Your task to perform on an android device: Show me popular videos on Youtube Image 0: 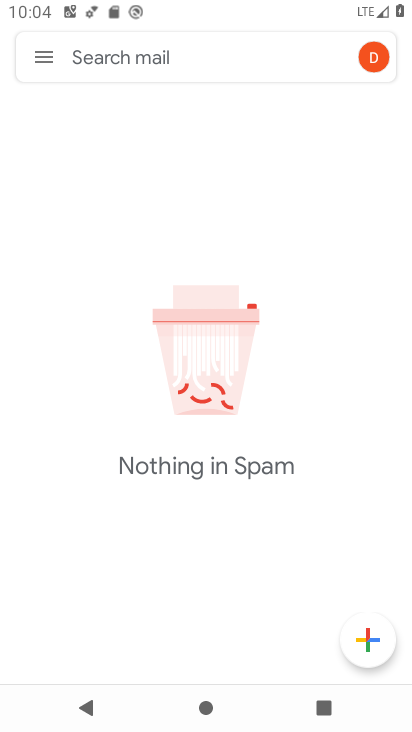
Step 0: press home button
Your task to perform on an android device: Show me popular videos on Youtube Image 1: 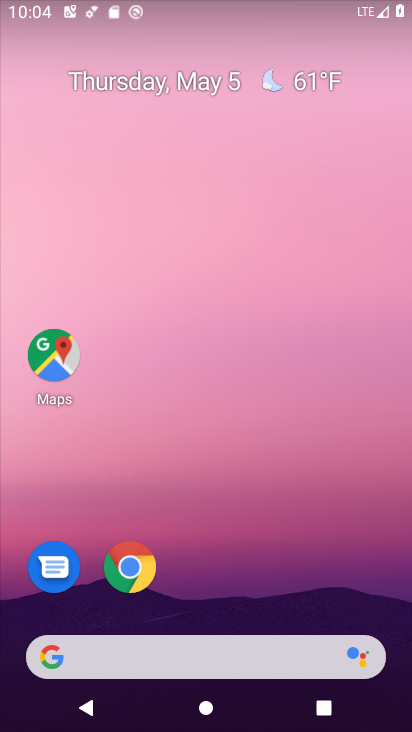
Step 1: drag from (314, 585) to (312, 161)
Your task to perform on an android device: Show me popular videos on Youtube Image 2: 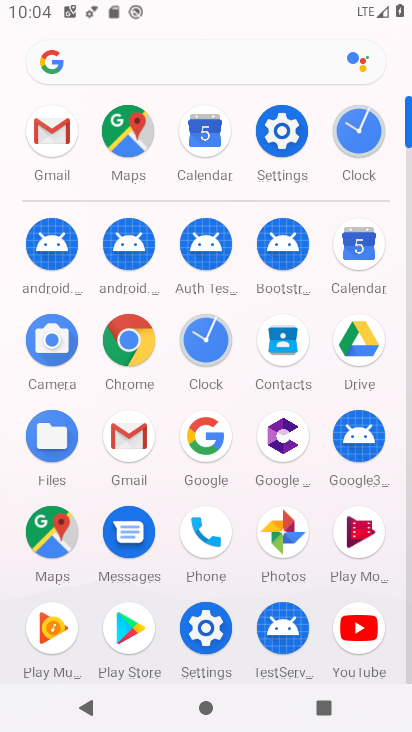
Step 2: click (347, 623)
Your task to perform on an android device: Show me popular videos on Youtube Image 3: 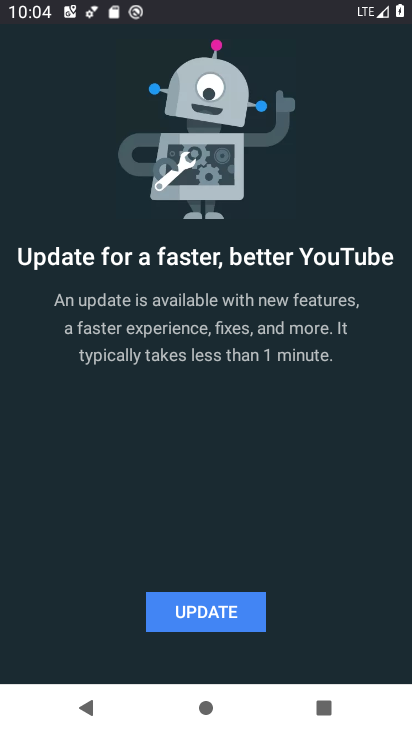
Step 3: click (218, 616)
Your task to perform on an android device: Show me popular videos on Youtube Image 4: 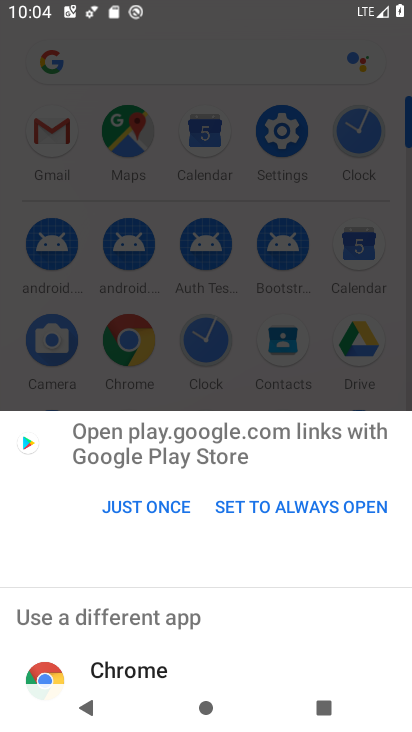
Step 4: click (139, 507)
Your task to perform on an android device: Show me popular videos on Youtube Image 5: 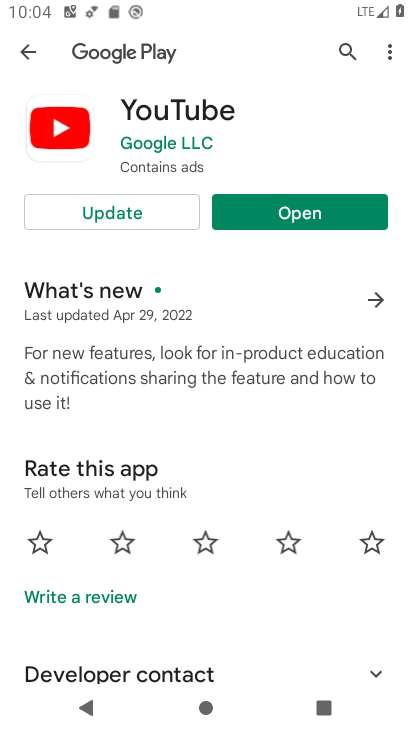
Step 5: click (112, 221)
Your task to perform on an android device: Show me popular videos on Youtube Image 6: 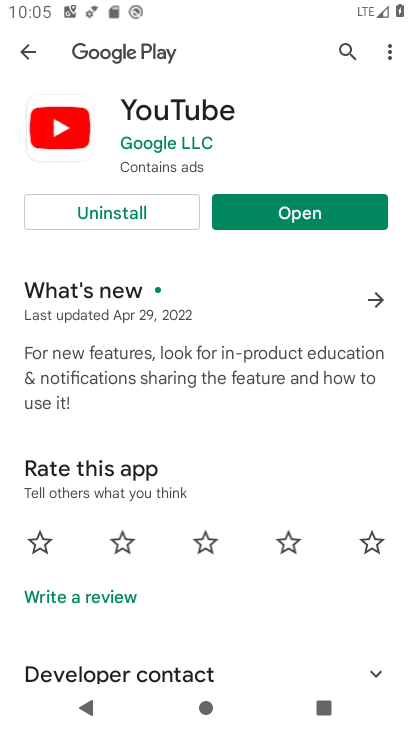
Step 6: click (342, 211)
Your task to perform on an android device: Show me popular videos on Youtube Image 7: 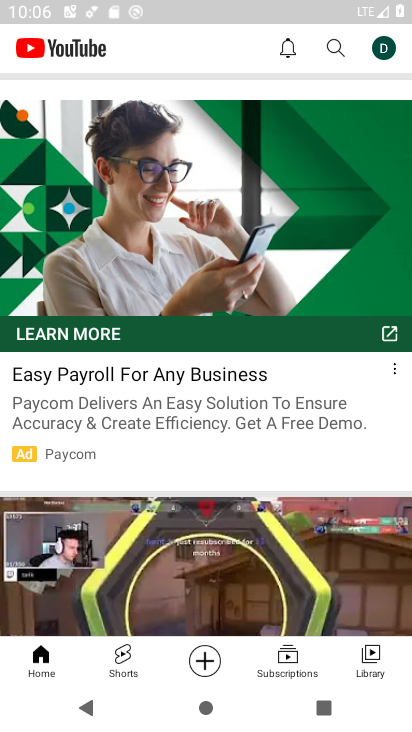
Step 7: click (328, 46)
Your task to perform on an android device: Show me popular videos on Youtube Image 8: 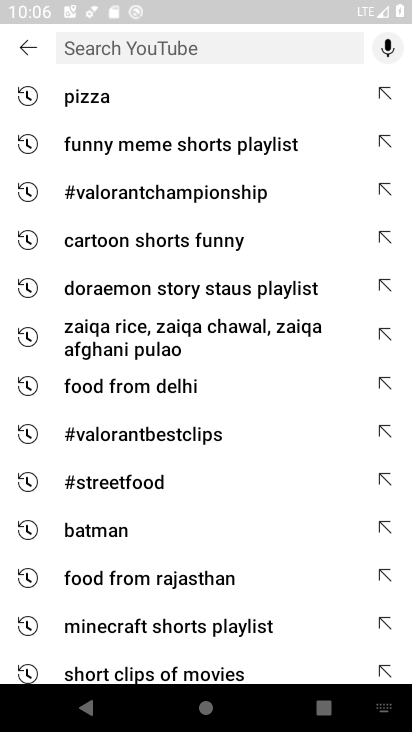
Step 8: type "popular videos"
Your task to perform on an android device: Show me popular videos on Youtube Image 9: 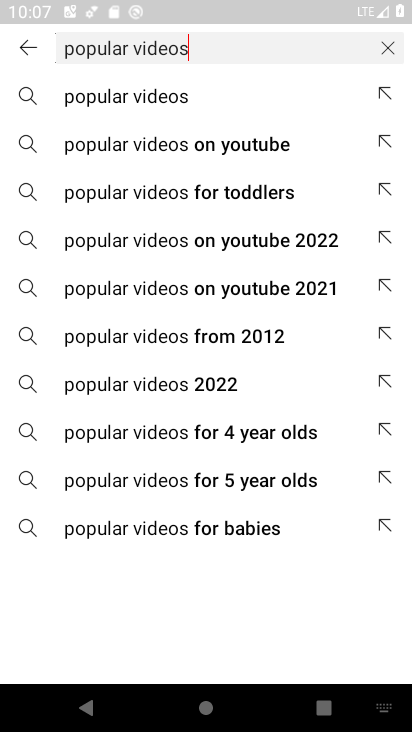
Step 9: click (200, 96)
Your task to perform on an android device: Show me popular videos on Youtube Image 10: 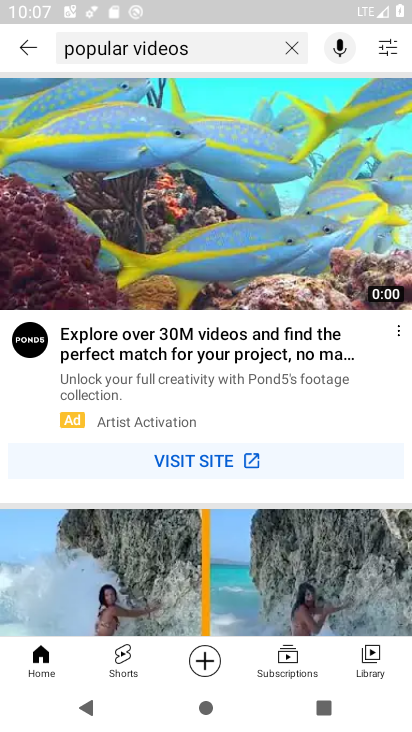
Step 10: task complete